Your task to perform on an android device: turn on translation in the chrome app Image 0: 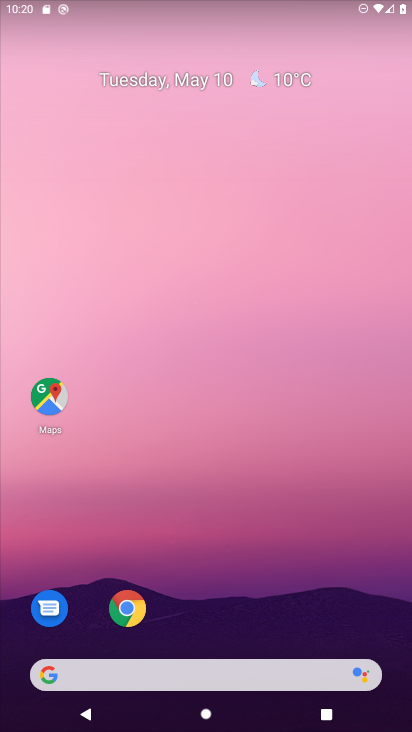
Step 0: drag from (363, 611) to (347, 65)
Your task to perform on an android device: turn on translation in the chrome app Image 1: 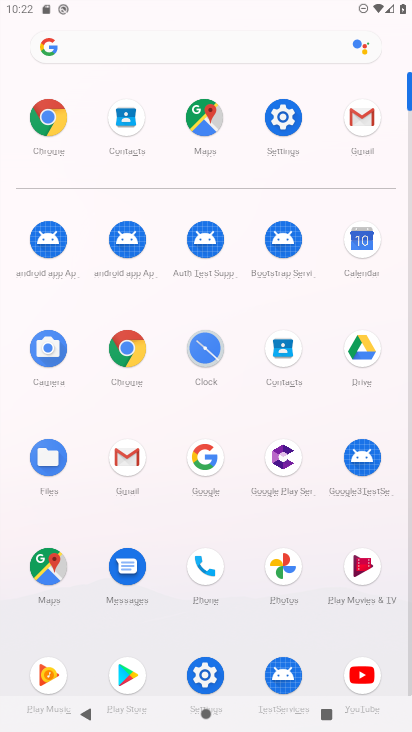
Step 1: click (126, 346)
Your task to perform on an android device: turn on translation in the chrome app Image 2: 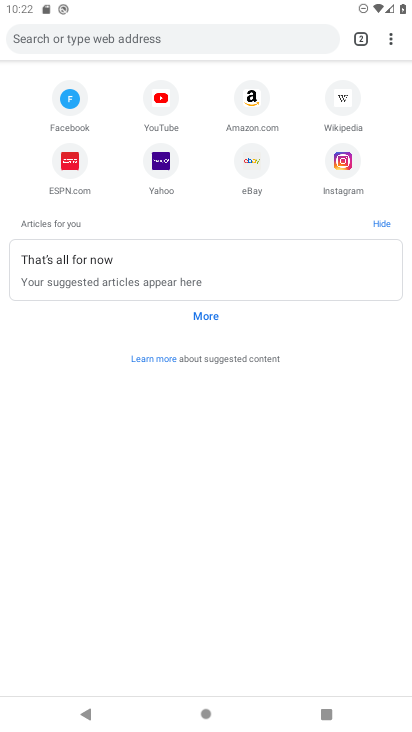
Step 2: click (388, 41)
Your task to perform on an android device: turn on translation in the chrome app Image 3: 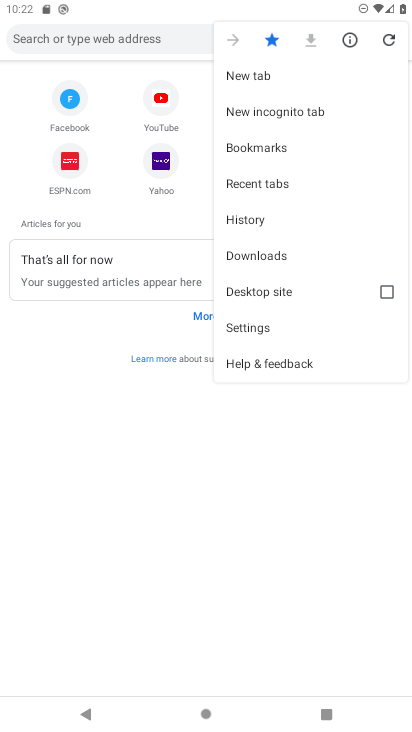
Step 3: click (271, 338)
Your task to perform on an android device: turn on translation in the chrome app Image 4: 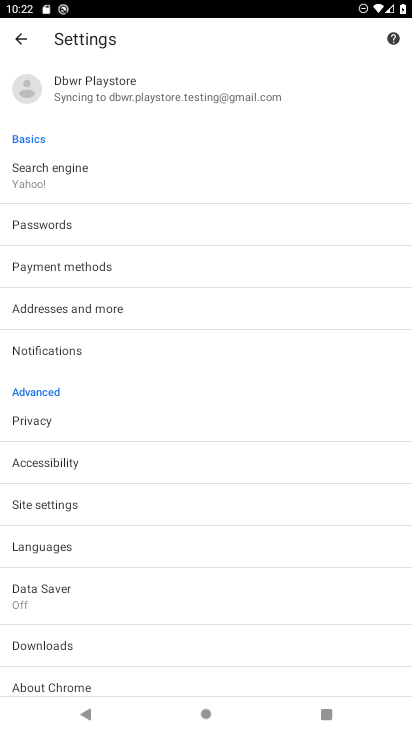
Step 4: click (127, 557)
Your task to perform on an android device: turn on translation in the chrome app Image 5: 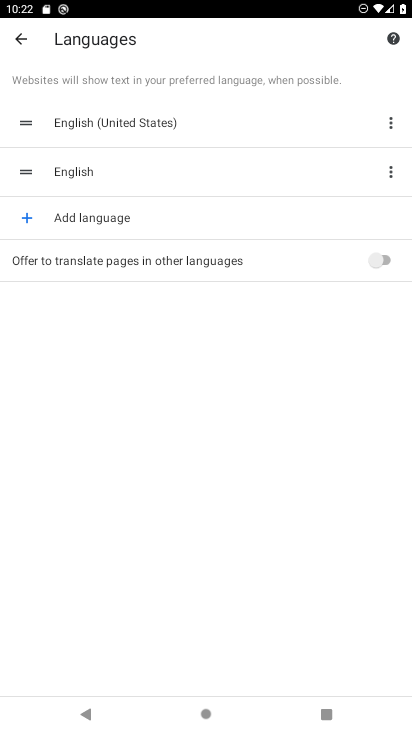
Step 5: click (368, 248)
Your task to perform on an android device: turn on translation in the chrome app Image 6: 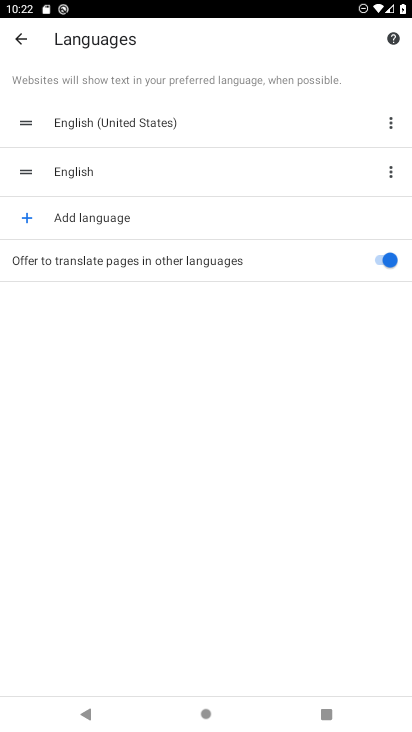
Step 6: task complete